Your task to perform on an android device: check google app version Image 0: 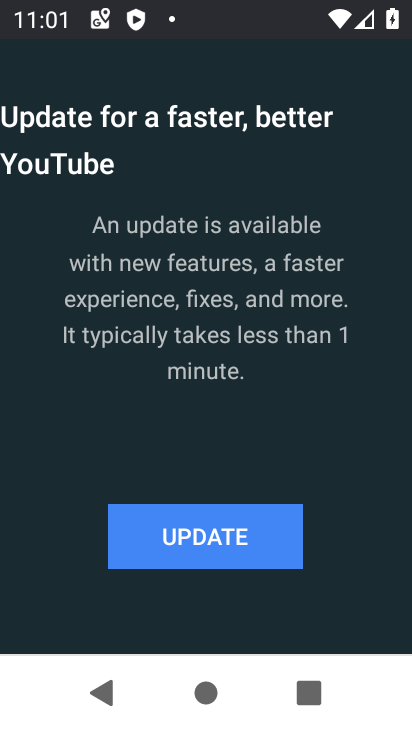
Step 0: press home button
Your task to perform on an android device: check google app version Image 1: 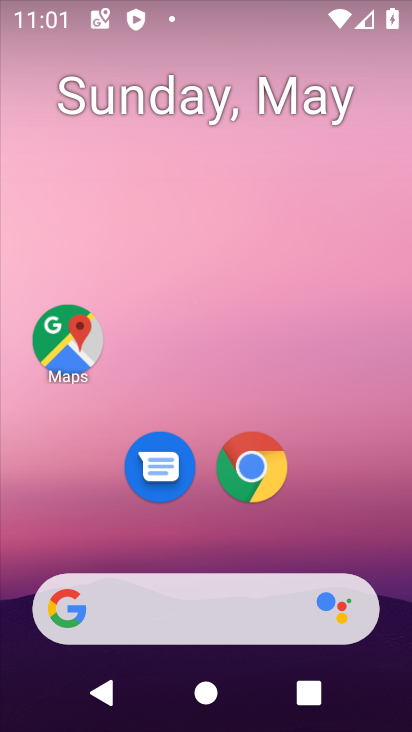
Step 1: drag from (372, 539) to (391, 18)
Your task to perform on an android device: check google app version Image 2: 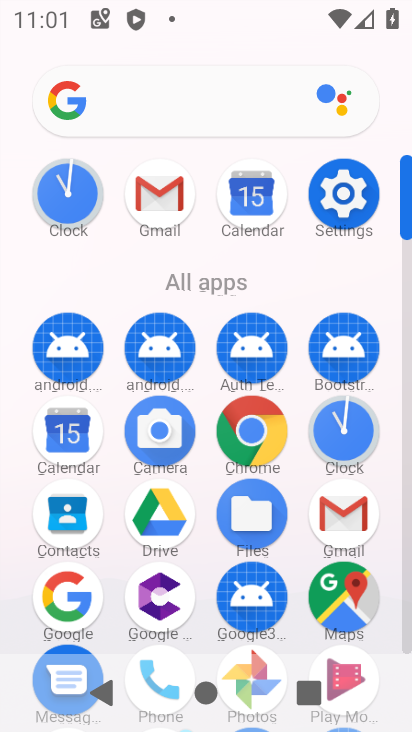
Step 2: click (62, 583)
Your task to perform on an android device: check google app version Image 3: 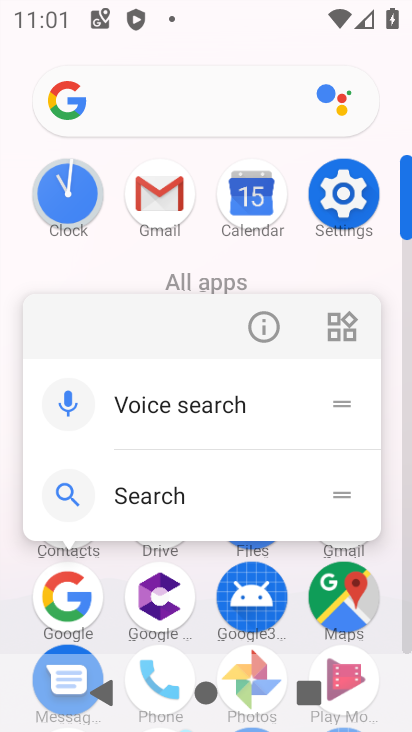
Step 3: click (256, 329)
Your task to perform on an android device: check google app version Image 4: 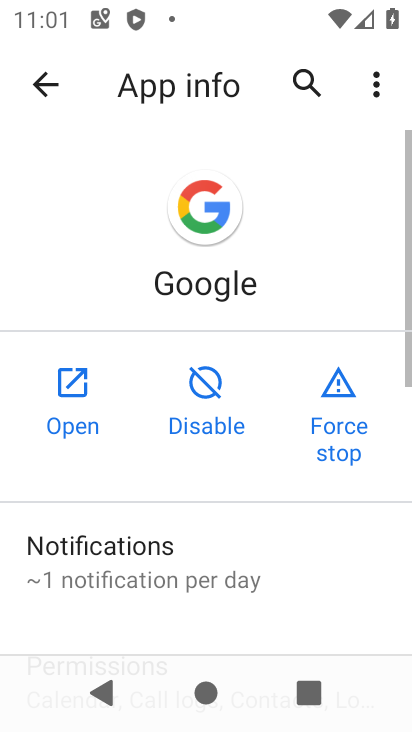
Step 4: drag from (222, 565) to (216, 79)
Your task to perform on an android device: check google app version Image 5: 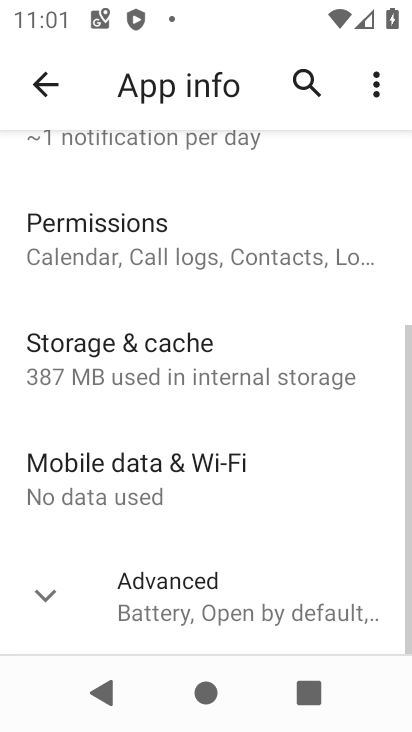
Step 5: drag from (186, 544) to (212, 141)
Your task to perform on an android device: check google app version Image 6: 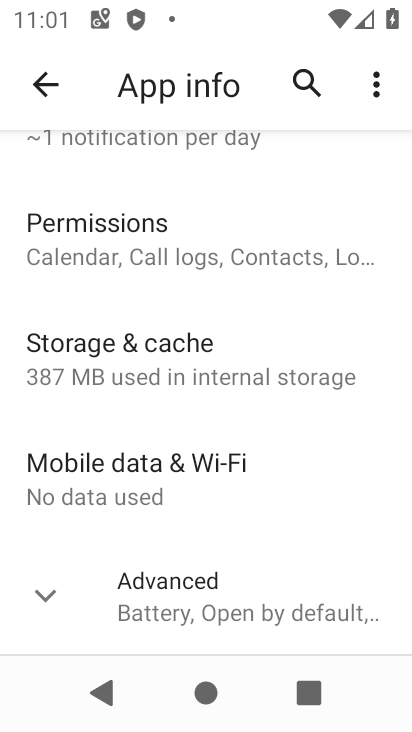
Step 6: click (43, 604)
Your task to perform on an android device: check google app version Image 7: 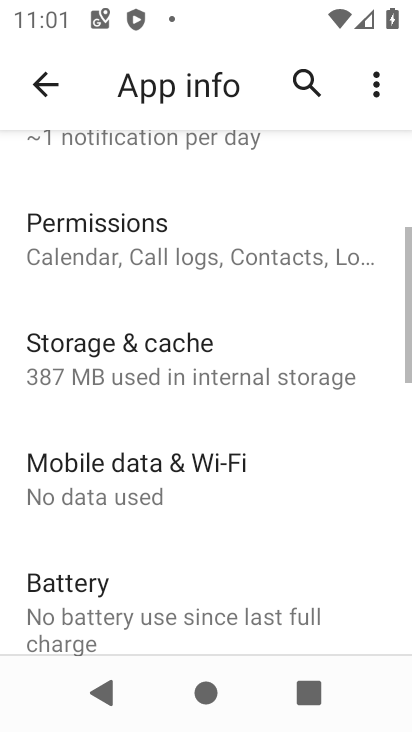
Step 7: task complete